Your task to perform on an android device: turn on the 12-hour format for clock Image 0: 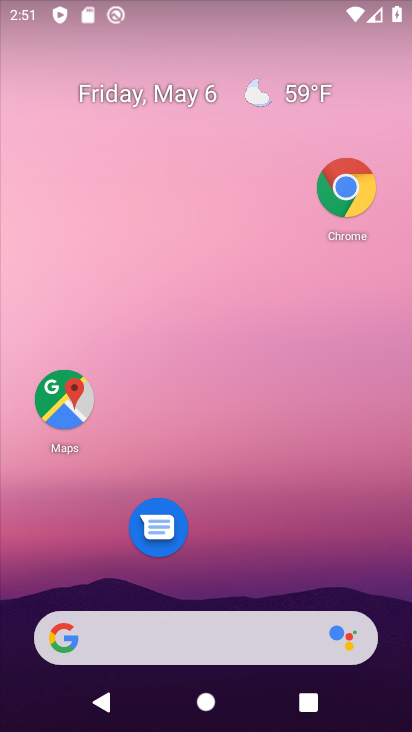
Step 0: drag from (285, 527) to (314, 93)
Your task to perform on an android device: turn on the 12-hour format for clock Image 1: 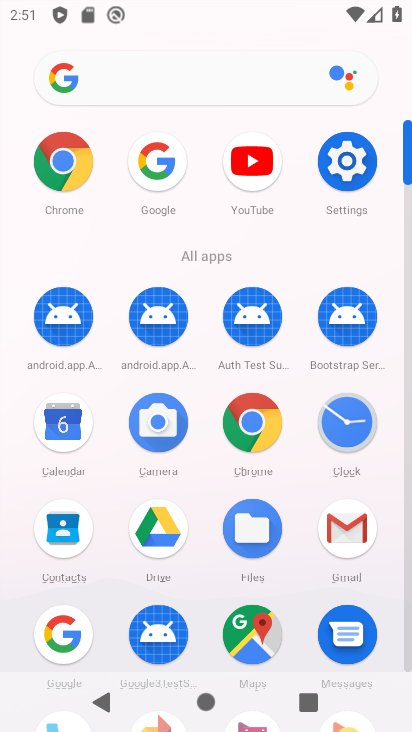
Step 1: click (329, 433)
Your task to perform on an android device: turn on the 12-hour format for clock Image 2: 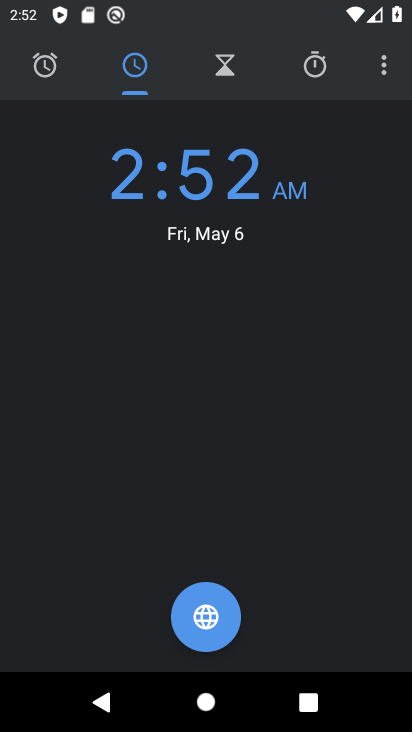
Step 2: click (377, 64)
Your task to perform on an android device: turn on the 12-hour format for clock Image 3: 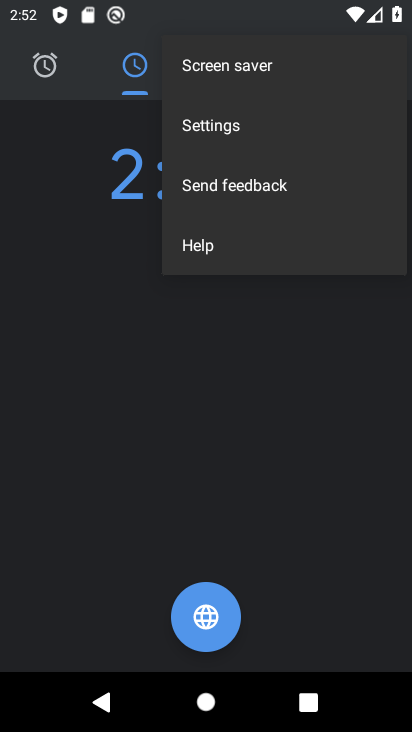
Step 3: click (212, 135)
Your task to perform on an android device: turn on the 12-hour format for clock Image 4: 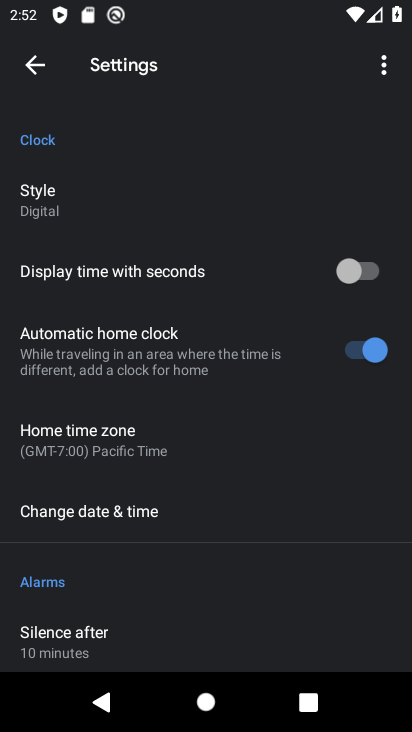
Step 4: click (385, 70)
Your task to perform on an android device: turn on the 12-hour format for clock Image 5: 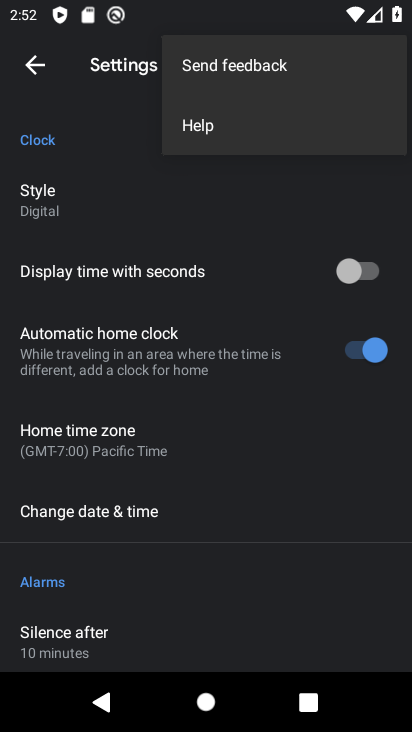
Step 5: click (242, 425)
Your task to perform on an android device: turn on the 12-hour format for clock Image 6: 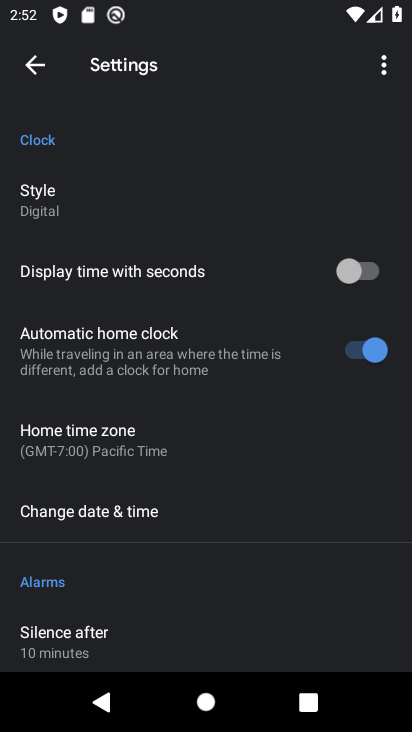
Step 6: click (159, 518)
Your task to perform on an android device: turn on the 12-hour format for clock Image 7: 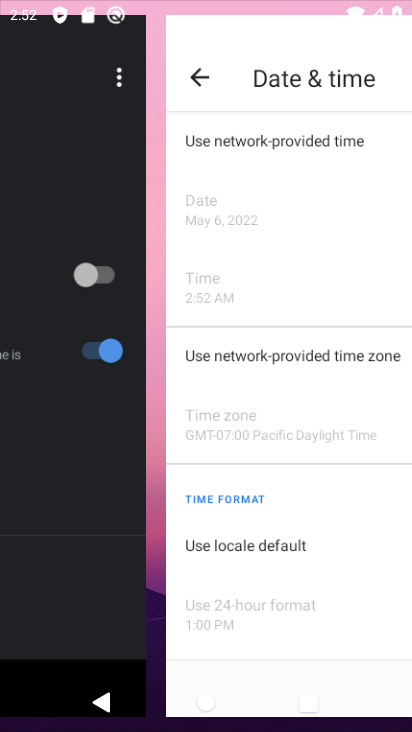
Step 7: click (159, 518)
Your task to perform on an android device: turn on the 12-hour format for clock Image 8: 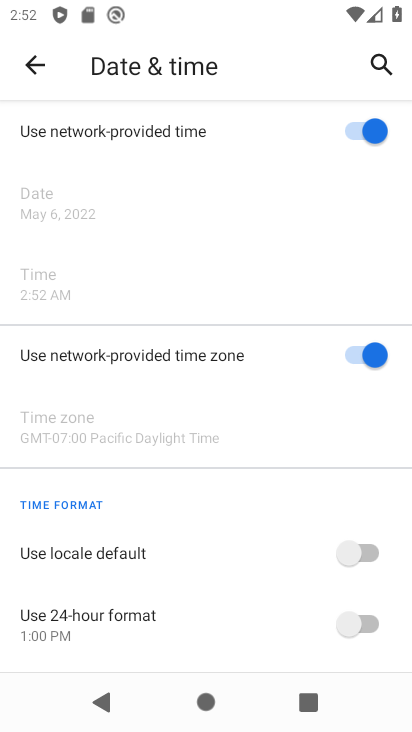
Step 8: click (379, 560)
Your task to perform on an android device: turn on the 12-hour format for clock Image 9: 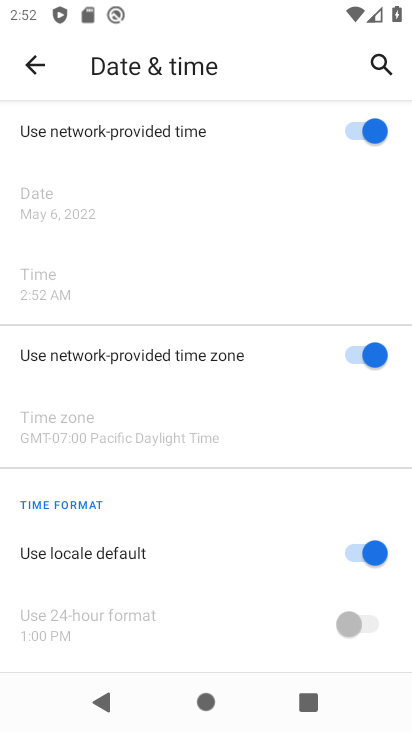
Step 9: task complete